Your task to perform on an android device: remove spam from my inbox in the gmail app Image 0: 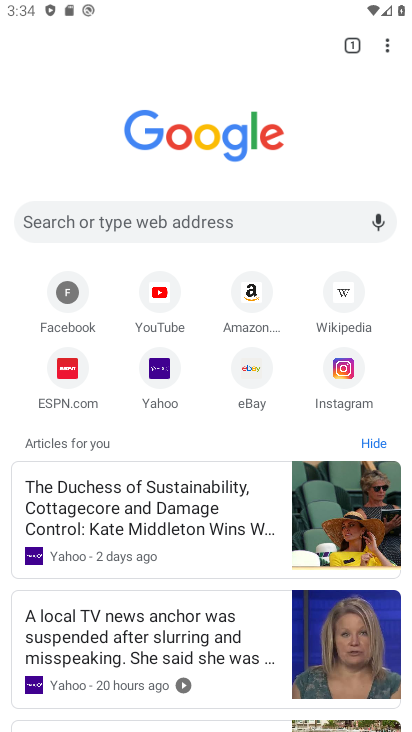
Step 0: press home button
Your task to perform on an android device: remove spam from my inbox in the gmail app Image 1: 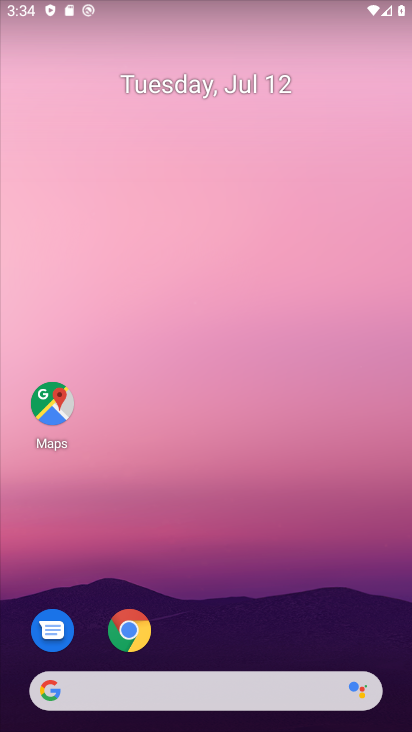
Step 1: drag from (255, 535) to (244, 79)
Your task to perform on an android device: remove spam from my inbox in the gmail app Image 2: 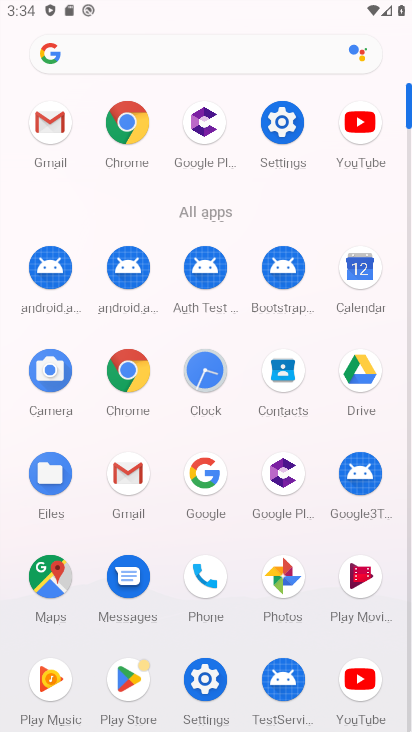
Step 2: click (128, 474)
Your task to perform on an android device: remove spam from my inbox in the gmail app Image 3: 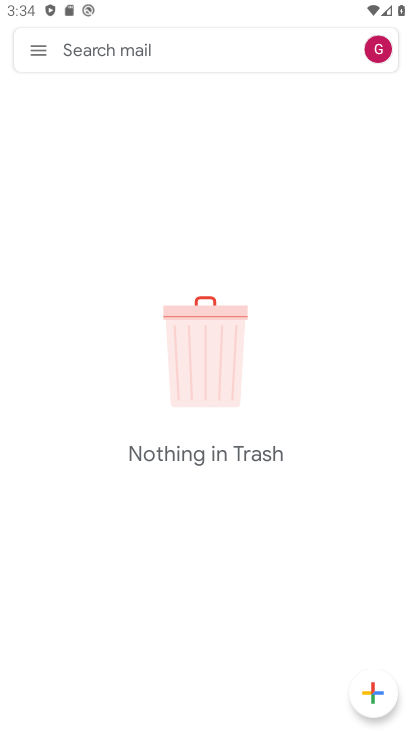
Step 3: click (41, 59)
Your task to perform on an android device: remove spam from my inbox in the gmail app Image 4: 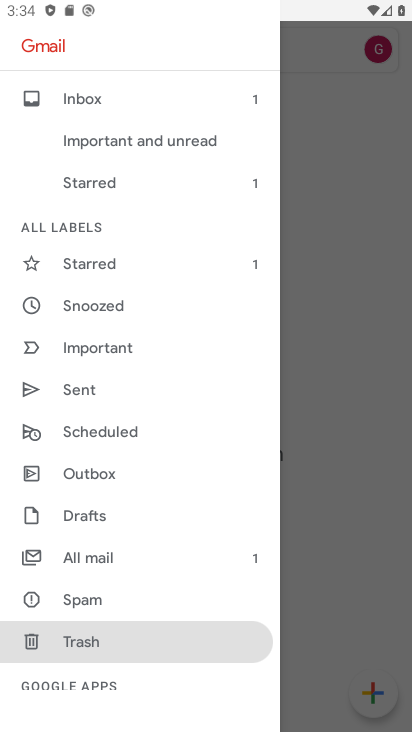
Step 4: click (125, 601)
Your task to perform on an android device: remove spam from my inbox in the gmail app Image 5: 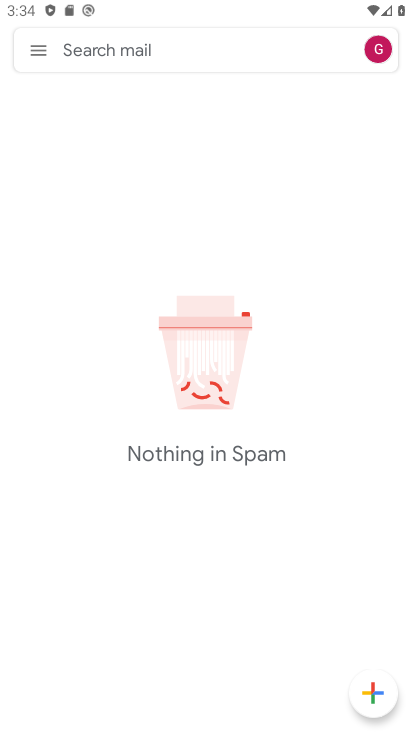
Step 5: task complete